Your task to perform on an android device: Open settings Image 0: 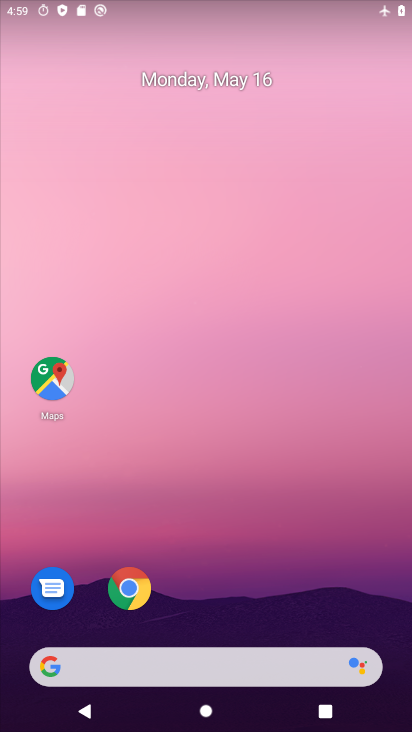
Step 0: drag from (246, 601) to (260, 107)
Your task to perform on an android device: Open settings Image 1: 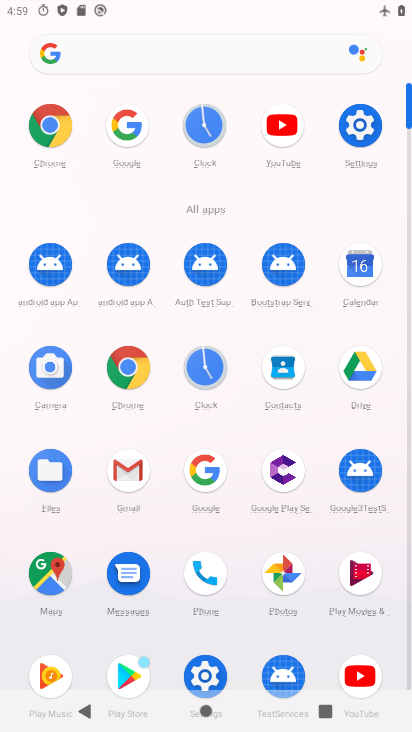
Step 1: click (363, 120)
Your task to perform on an android device: Open settings Image 2: 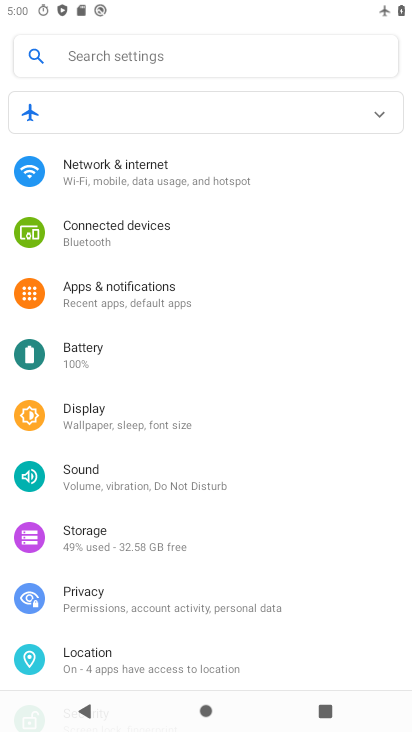
Step 2: task complete